Your task to perform on an android device: Show the shopping cart on ebay. Search for "bose soundsport free" on ebay, select the first entry, and add it to the cart. Image 0: 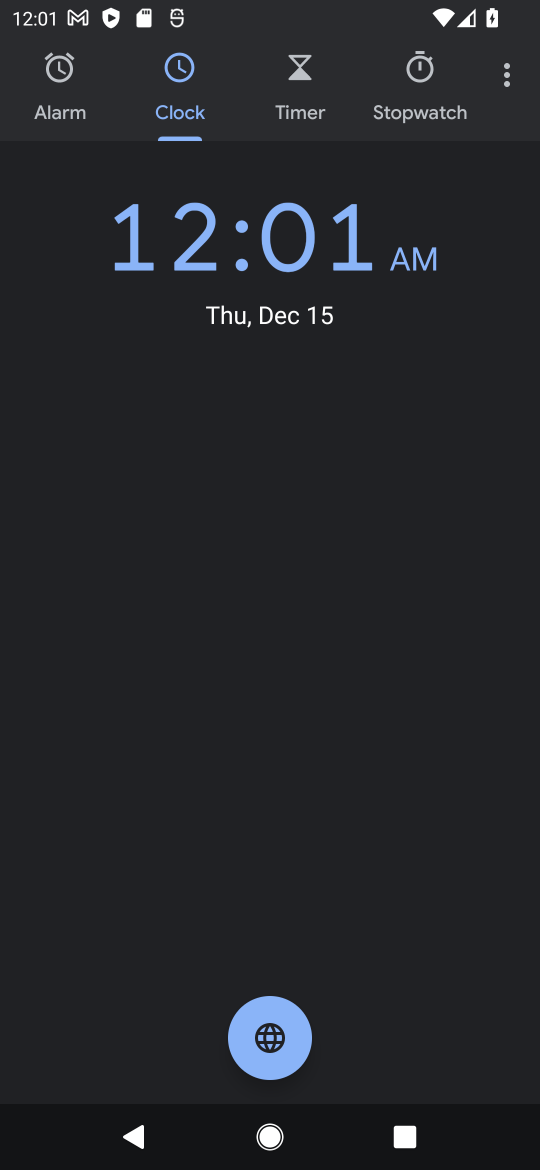
Step 0: press home button
Your task to perform on an android device: Show the shopping cart on ebay. Search for "bose soundsport free" on ebay, select the first entry, and add it to the cart. Image 1: 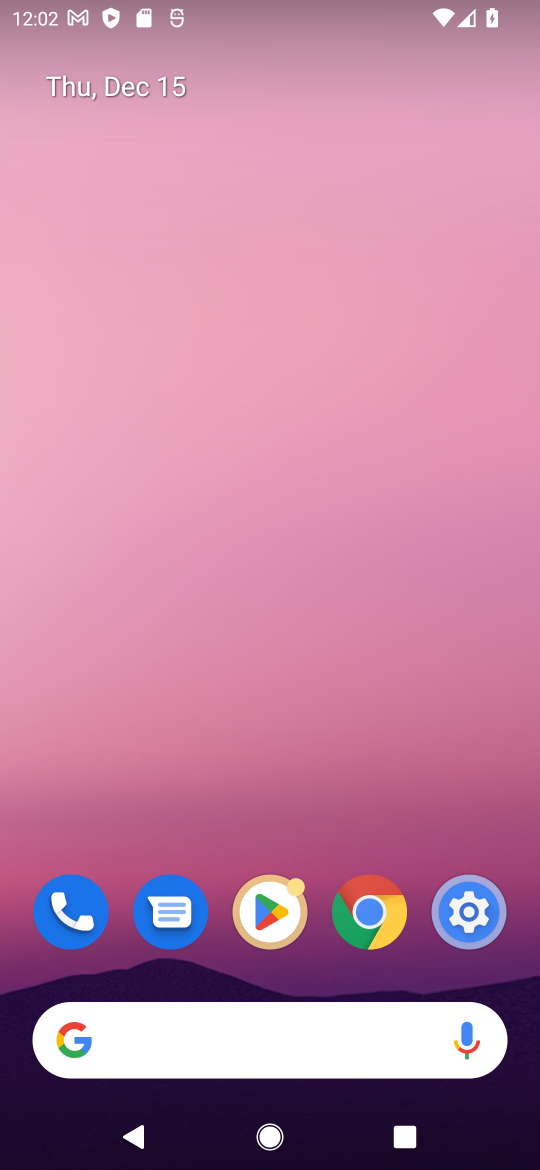
Step 1: drag from (281, 1000) to (288, 223)
Your task to perform on an android device: Show the shopping cart on ebay. Search for "bose soundsport free" on ebay, select the first entry, and add it to the cart. Image 2: 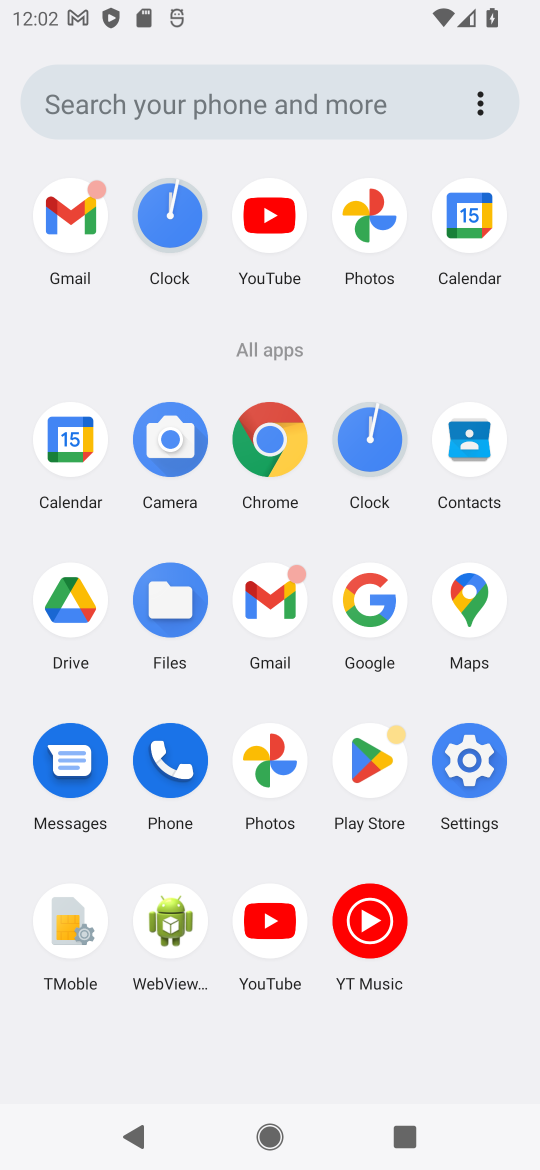
Step 2: click (370, 597)
Your task to perform on an android device: Show the shopping cart on ebay. Search for "bose soundsport free" on ebay, select the first entry, and add it to the cart. Image 3: 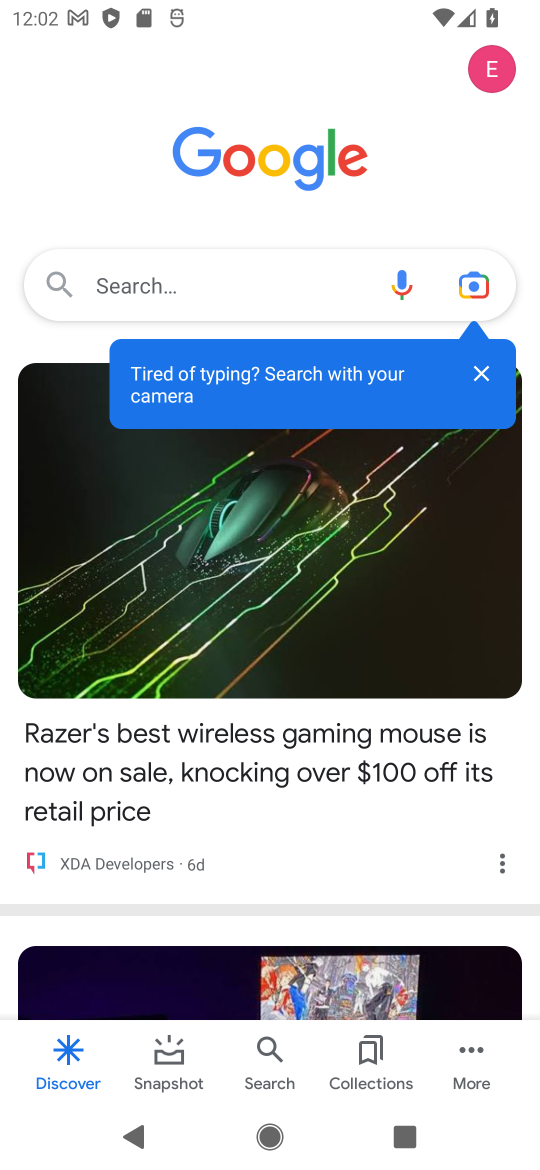
Step 3: click (204, 277)
Your task to perform on an android device: Show the shopping cart on ebay. Search for "bose soundsport free" on ebay, select the first entry, and add it to the cart. Image 4: 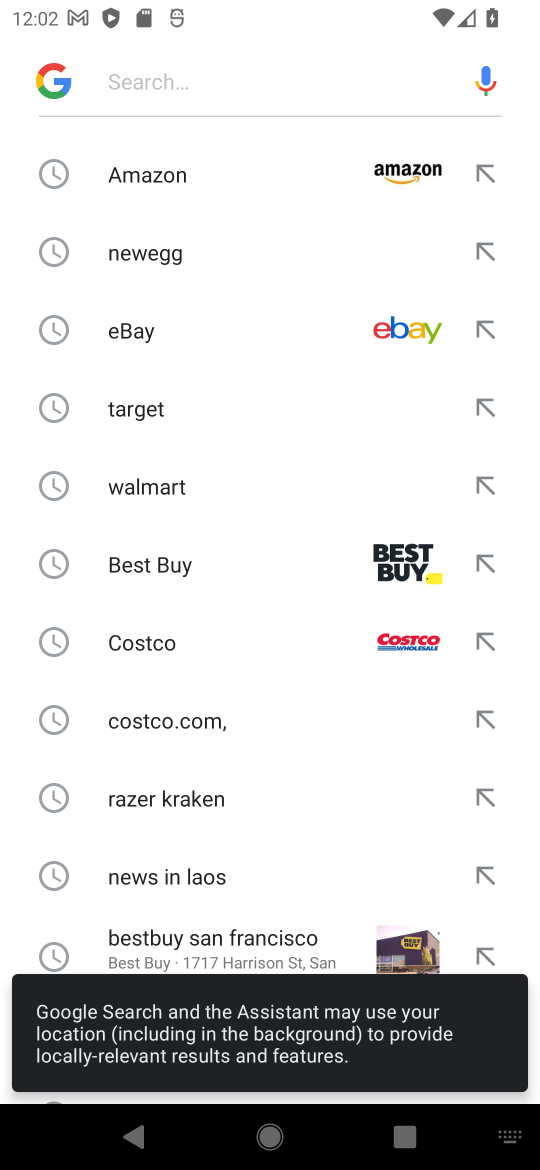
Step 4: click (150, 334)
Your task to perform on an android device: Show the shopping cart on ebay. Search for "bose soundsport free" on ebay, select the first entry, and add it to the cart. Image 5: 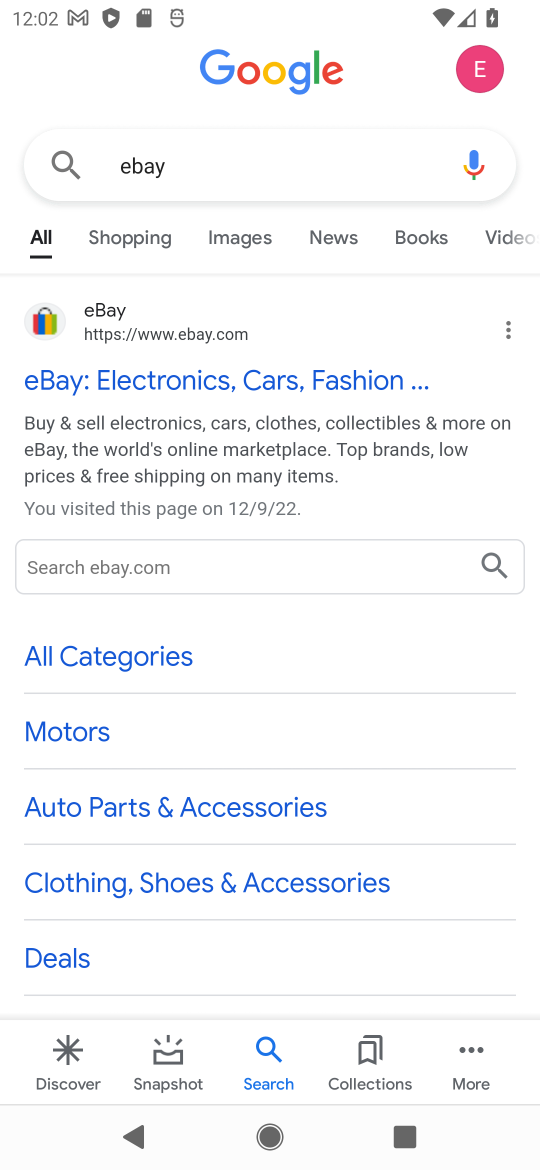
Step 5: click (113, 387)
Your task to perform on an android device: Show the shopping cart on ebay. Search for "bose soundsport free" on ebay, select the first entry, and add it to the cart. Image 6: 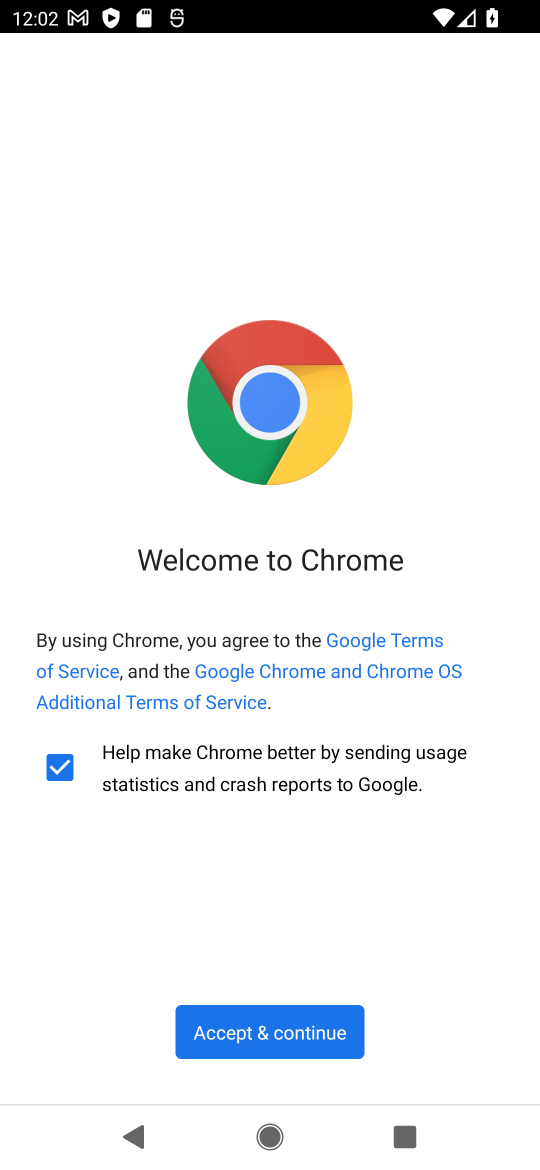
Step 6: click (248, 1027)
Your task to perform on an android device: Show the shopping cart on ebay. Search for "bose soundsport free" on ebay, select the first entry, and add it to the cart. Image 7: 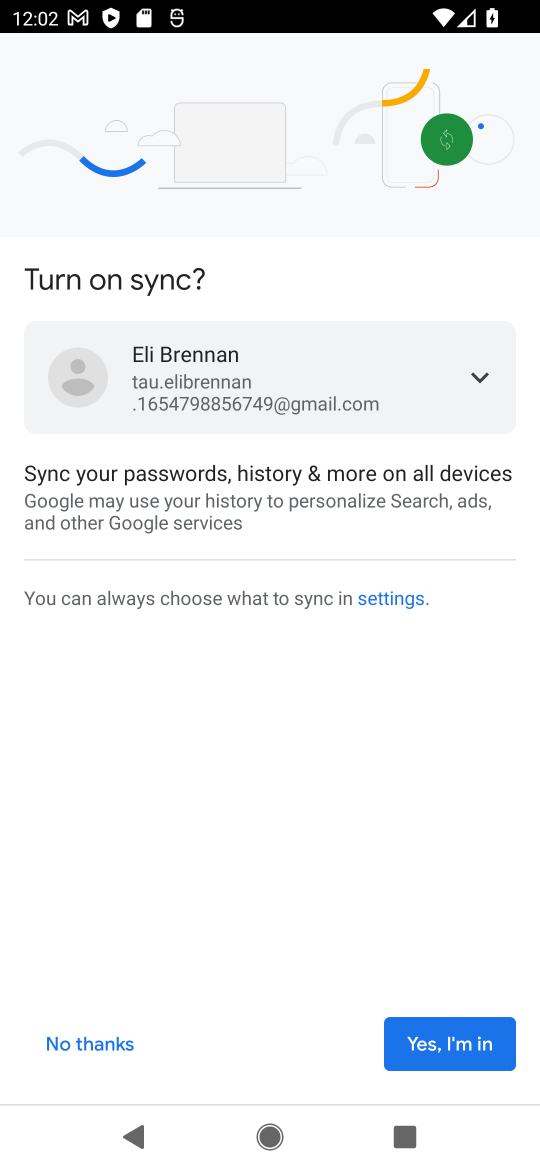
Step 7: click (441, 1059)
Your task to perform on an android device: Show the shopping cart on ebay. Search for "bose soundsport free" on ebay, select the first entry, and add it to the cart. Image 8: 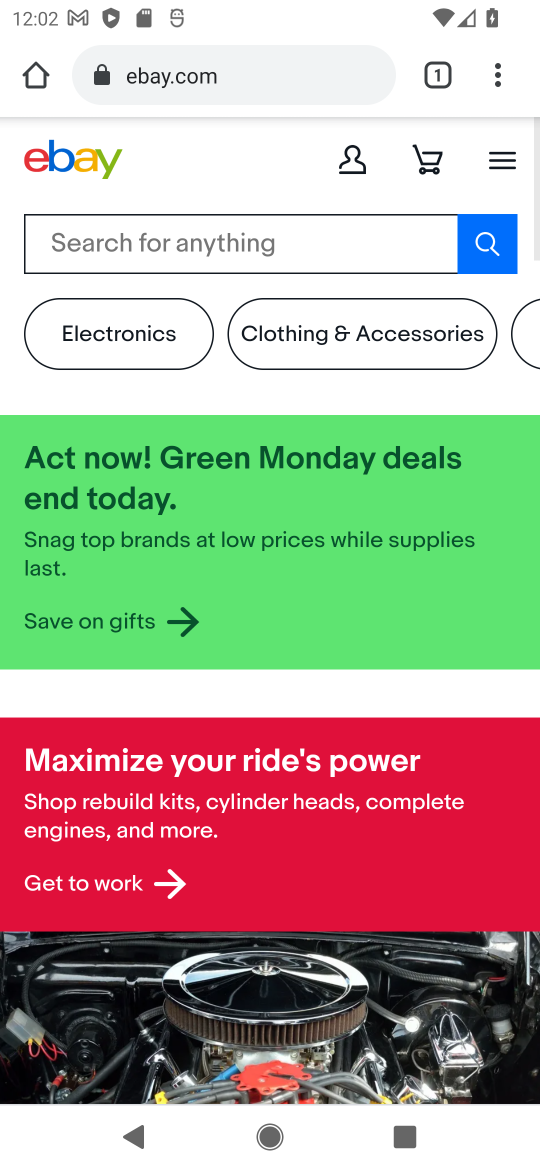
Step 8: click (225, 228)
Your task to perform on an android device: Show the shopping cart on ebay. Search for "bose soundsport free" on ebay, select the first entry, and add it to the cart. Image 9: 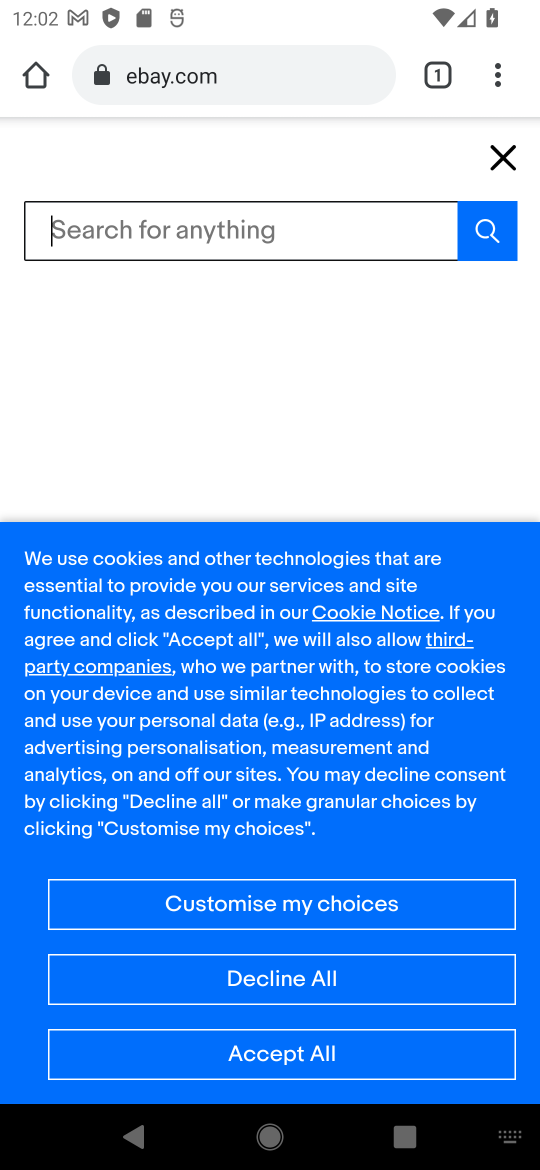
Step 9: type "bose soundsport free"
Your task to perform on an android device: Show the shopping cart on ebay. Search for "bose soundsport free" on ebay, select the first entry, and add it to the cart. Image 10: 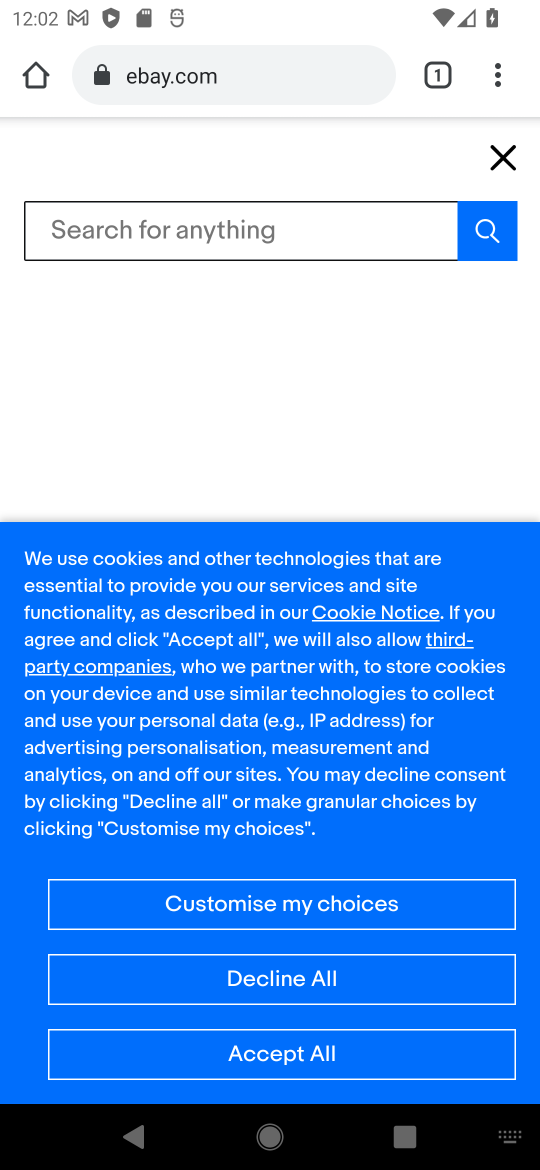
Step 10: click (483, 227)
Your task to perform on an android device: Show the shopping cart on ebay. Search for "bose soundsport free" on ebay, select the first entry, and add it to the cart. Image 11: 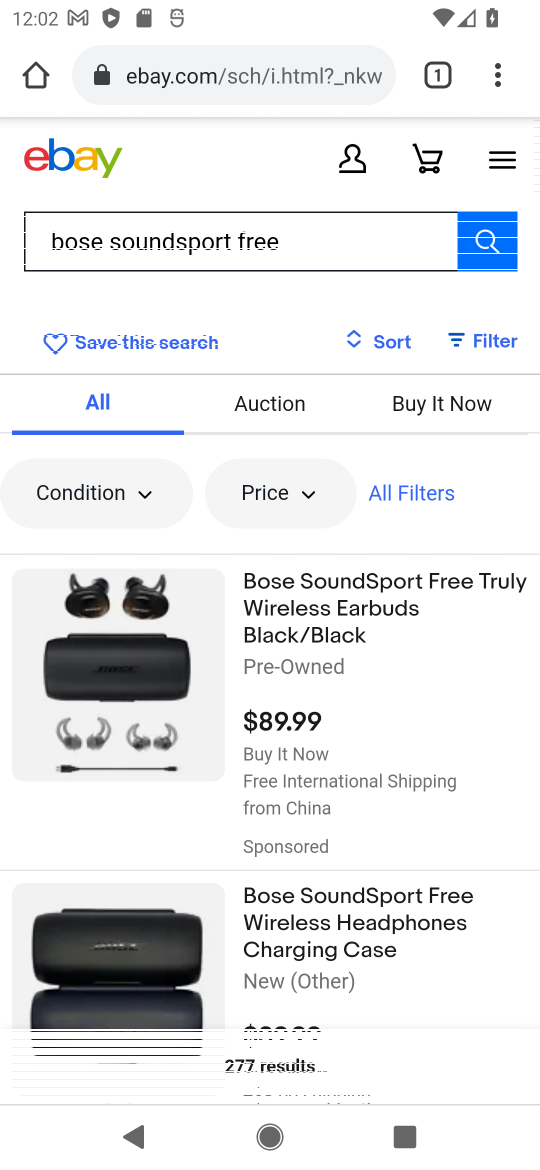
Step 11: click (315, 600)
Your task to perform on an android device: Show the shopping cart on ebay. Search for "bose soundsport free" on ebay, select the first entry, and add it to the cart. Image 12: 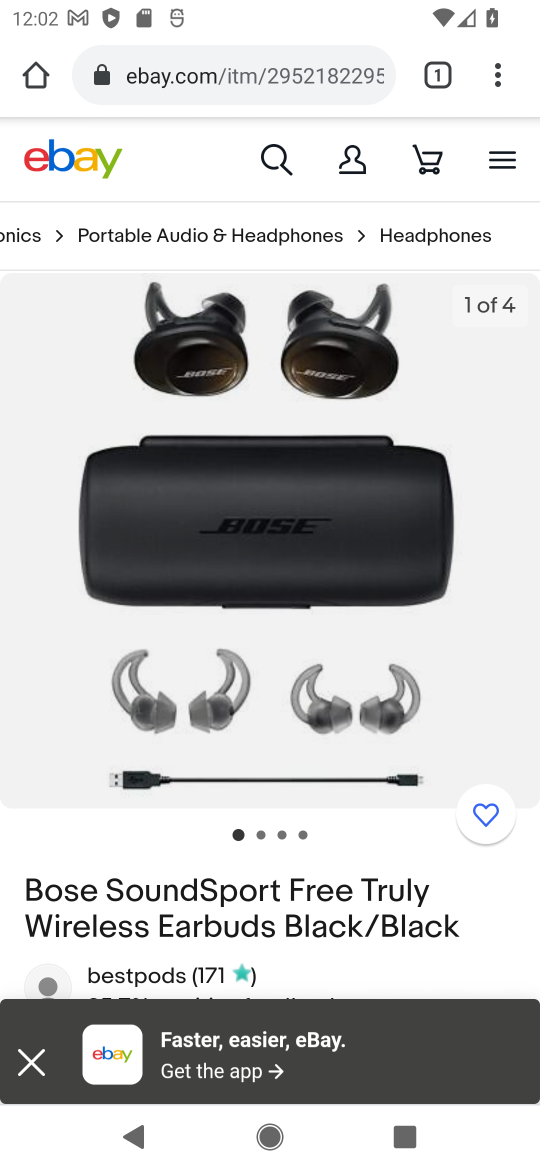
Step 12: drag from (332, 849) to (332, 427)
Your task to perform on an android device: Show the shopping cart on ebay. Search for "bose soundsport free" on ebay, select the first entry, and add it to the cart. Image 13: 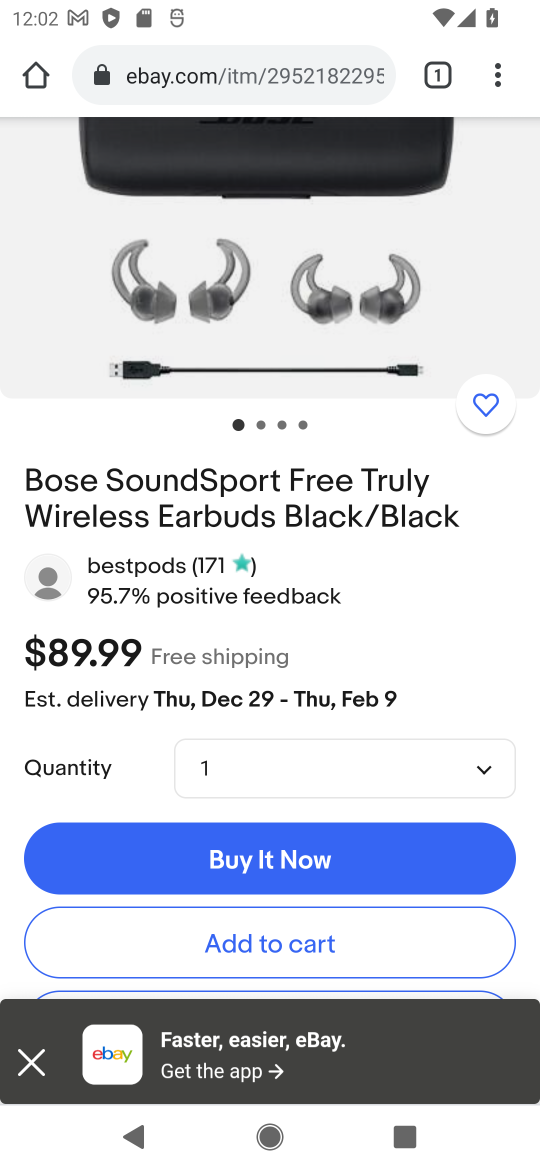
Step 13: click (288, 940)
Your task to perform on an android device: Show the shopping cart on ebay. Search for "bose soundsport free" on ebay, select the first entry, and add it to the cart. Image 14: 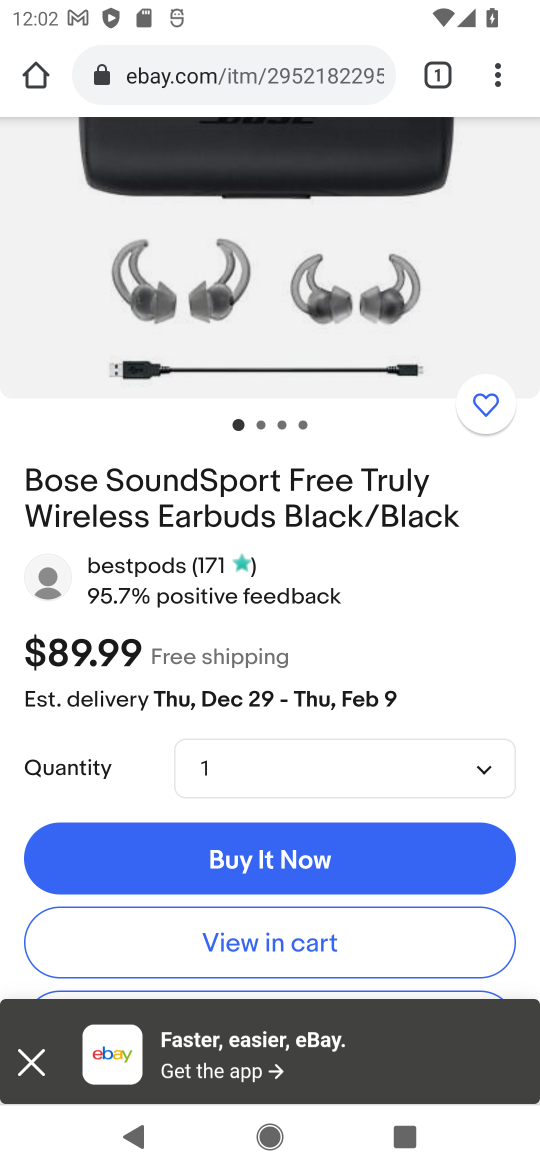
Step 14: click (288, 940)
Your task to perform on an android device: Show the shopping cart on ebay. Search for "bose soundsport free" on ebay, select the first entry, and add it to the cart. Image 15: 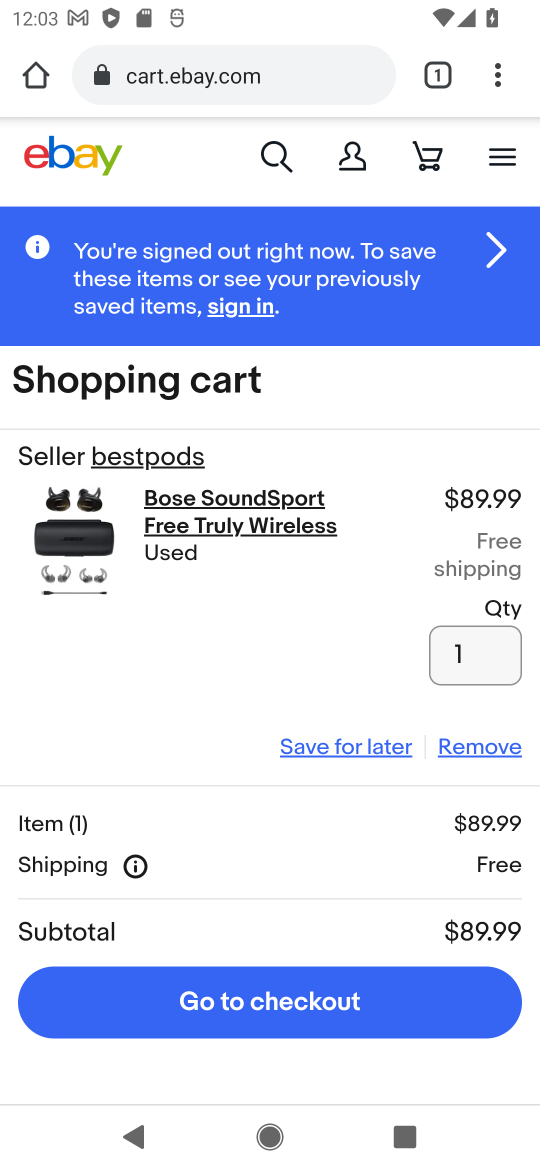
Step 15: click (221, 1009)
Your task to perform on an android device: Show the shopping cart on ebay. Search for "bose soundsport free" on ebay, select the first entry, and add it to the cart. Image 16: 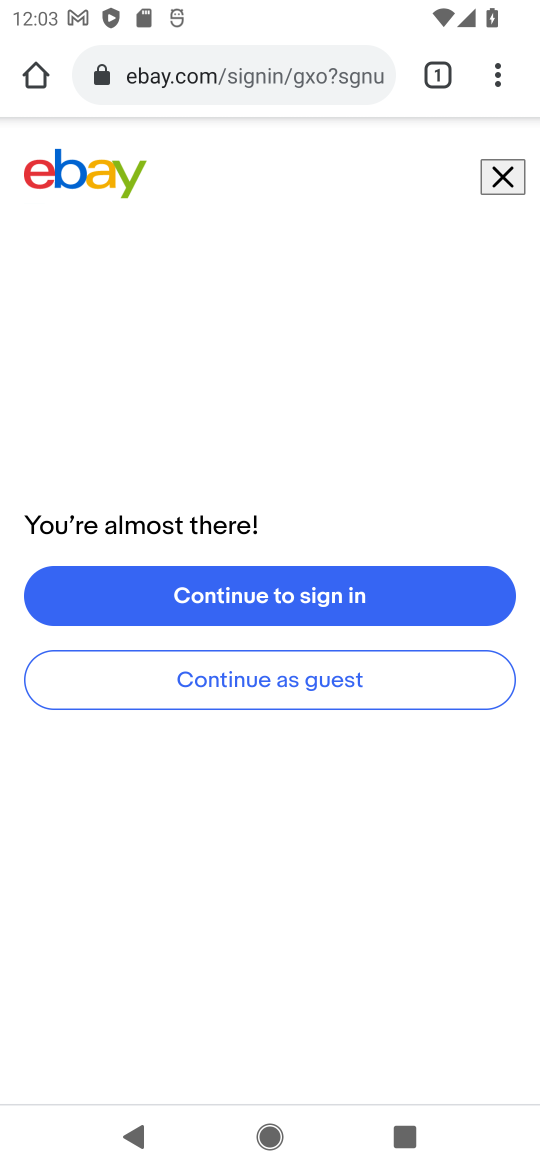
Step 16: task complete